Your task to perform on an android device: open a bookmark in the chrome app Image 0: 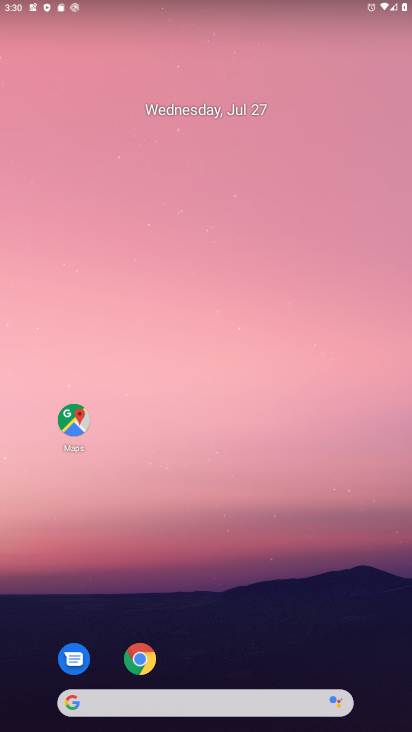
Step 0: drag from (293, 637) to (247, 113)
Your task to perform on an android device: open a bookmark in the chrome app Image 1: 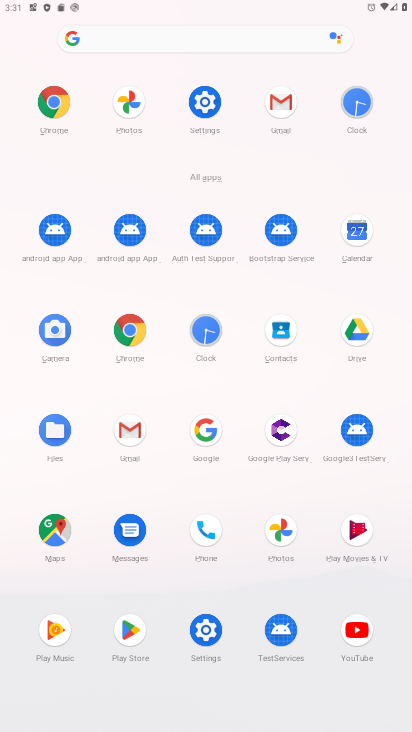
Step 1: click (50, 103)
Your task to perform on an android device: open a bookmark in the chrome app Image 2: 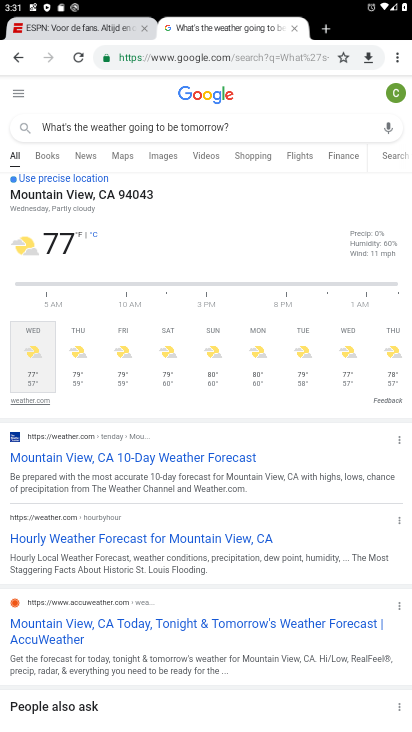
Step 2: click (395, 63)
Your task to perform on an android device: open a bookmark in the chrome app Image 3: 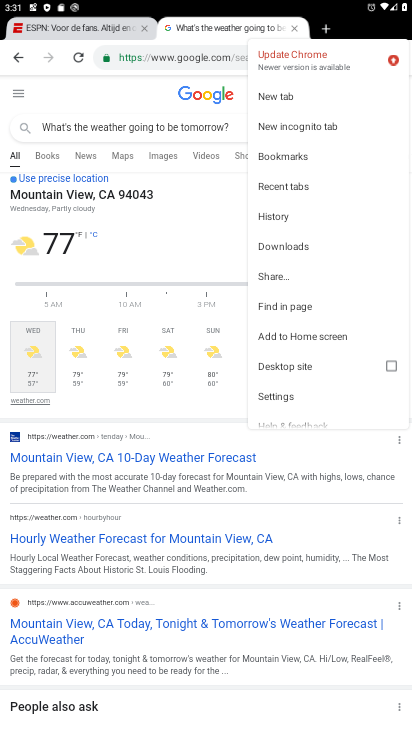
Step 3: click (354, 158)
Your task to perform on an android device: open a bookmark in the chrome app Image 4: 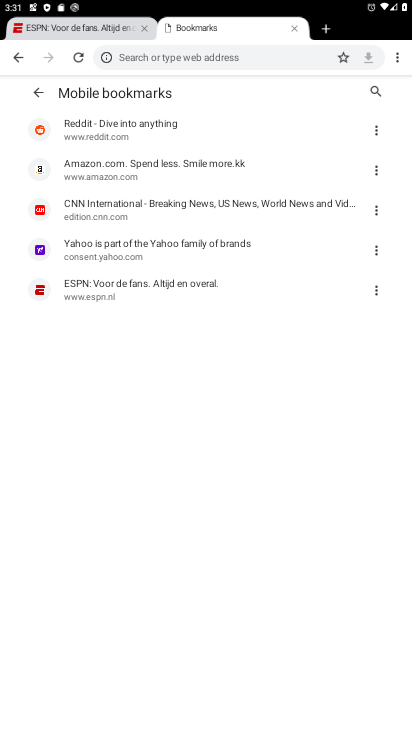
Step 4: click (252, 169)
Your task to perform on an android device: open a bookmark in the chrome app Image 5: 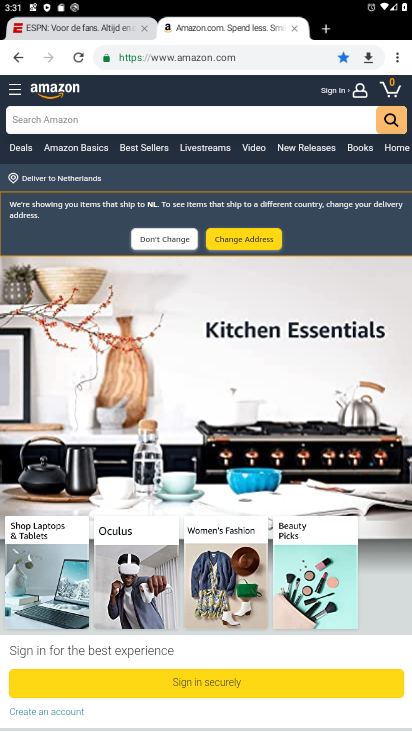
Step 5: task complete